Your task to perform on an android device: check google app version Image 0: 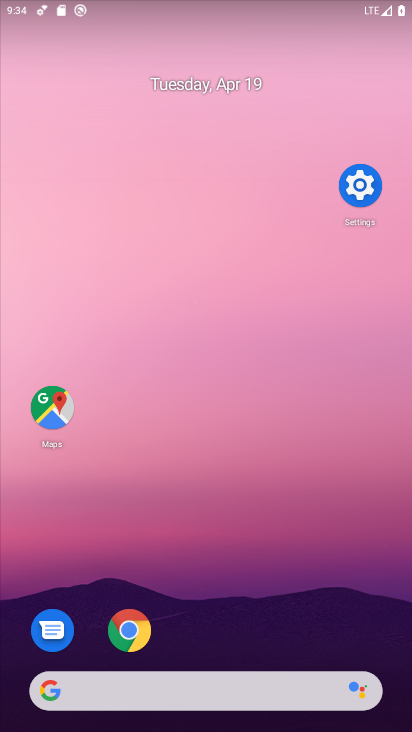
Step 0: drag from (295, 630) to (252, 166)
Your task to perform on an android device: check google app version Image 1: 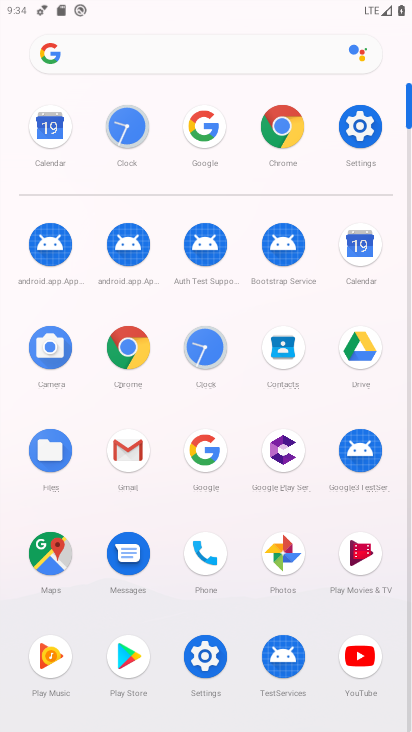
Step 1: click (212, 460)
Your task to perform on an android device: check google app version Image 2: 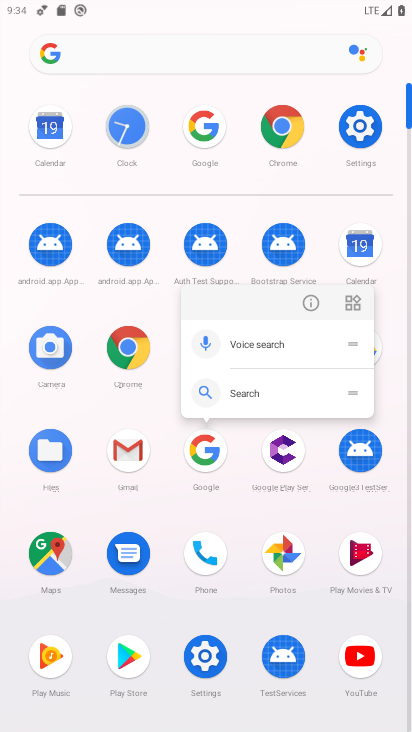
Step 2: click (210, 464)
Your task to perform on an android device: check google app version Image 3: 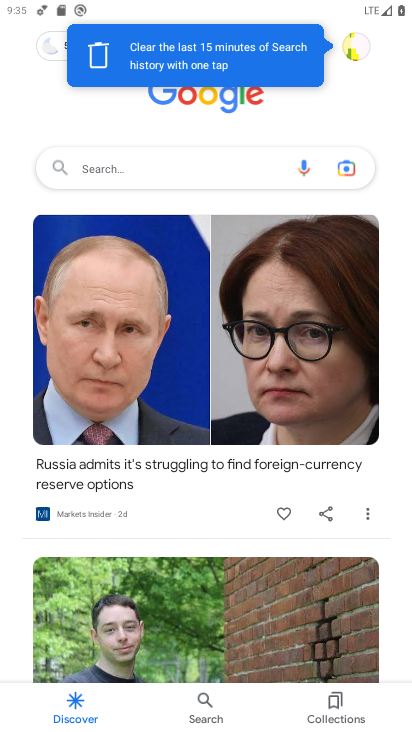
Step 3: click (355, 58)
Your task to perform on an android device: check google app version Image 4: 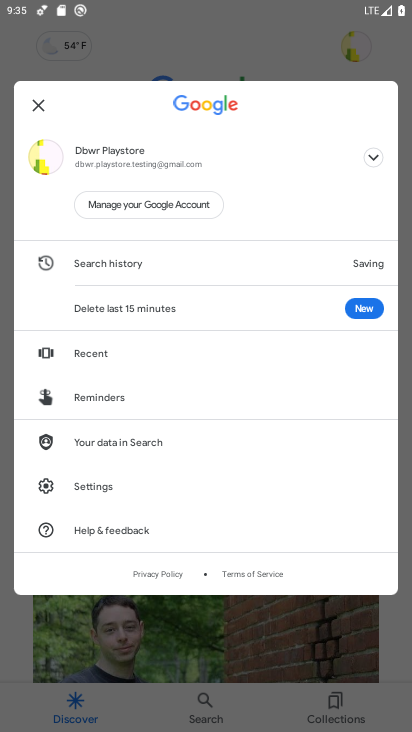
Step 4: click (115, 480)
Your task to perform on an android device: check google app version Image 5: 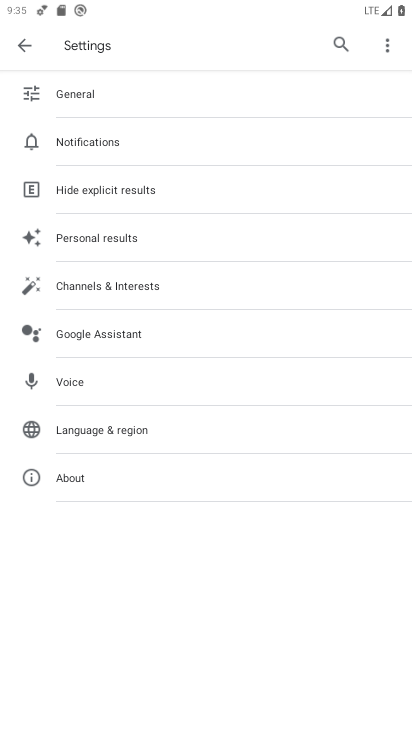
Step 5: click (115, 478)
Your task to perform on an android device: check google app version Image 6: 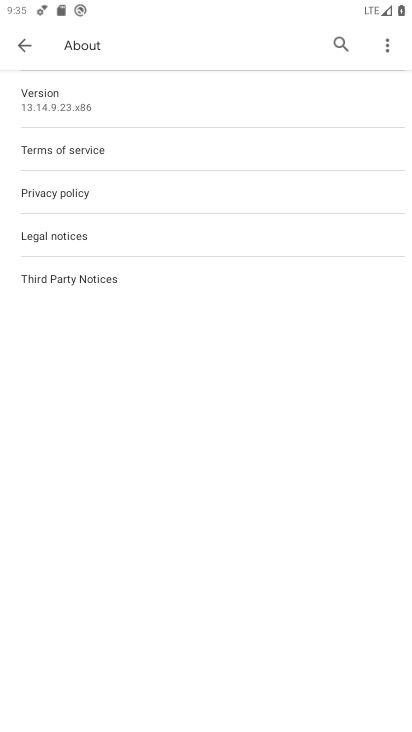
Step 6: task complete